Your task to perform on an android device: Show the shopping cart on ebay. Search for usb-c to usb-b on ebay, select the first entry, add it to the cart, then select checkout. Image 0: 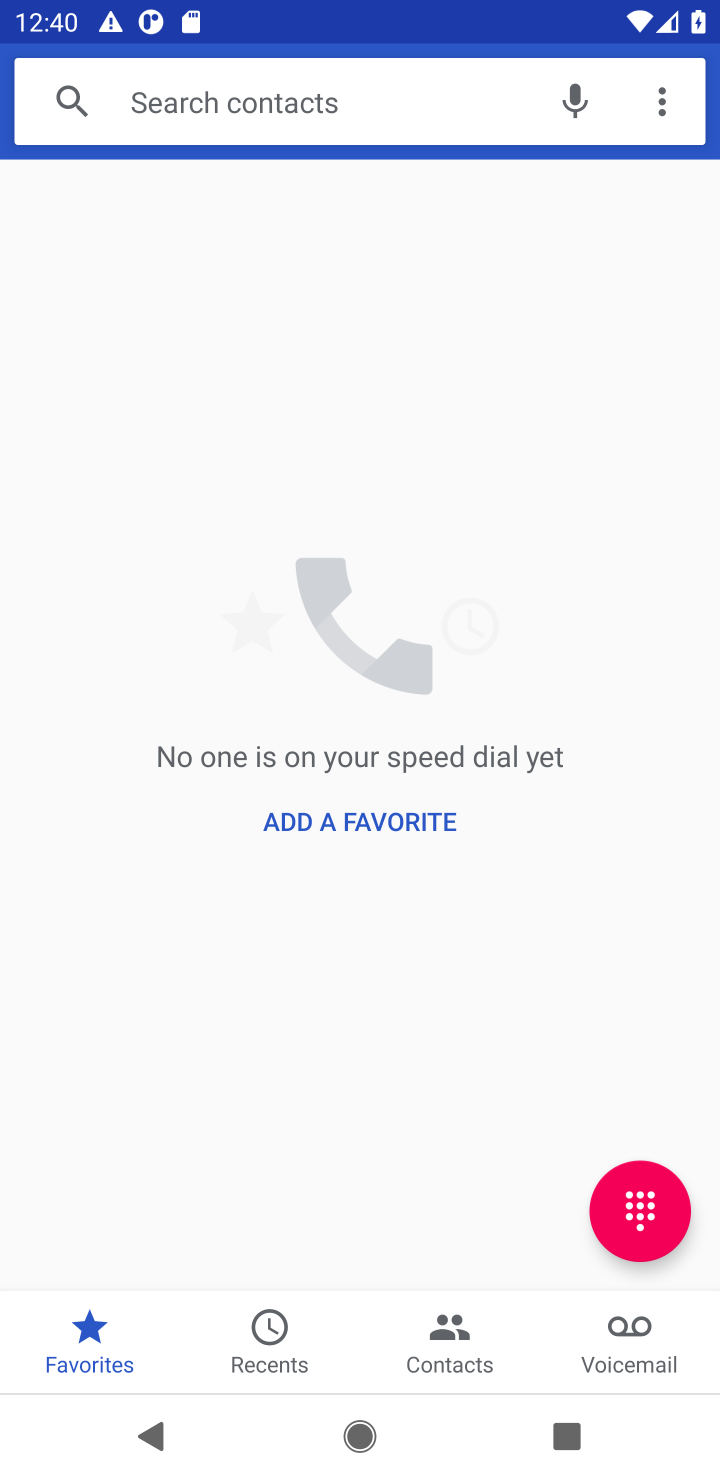
Step 0: press home button
Your task to perform on an android device: Show the shopping cart on ebay. Search for usb-c to usb-b on ebay, select the first entry, add it to the cart, then select checkout. Image 1: 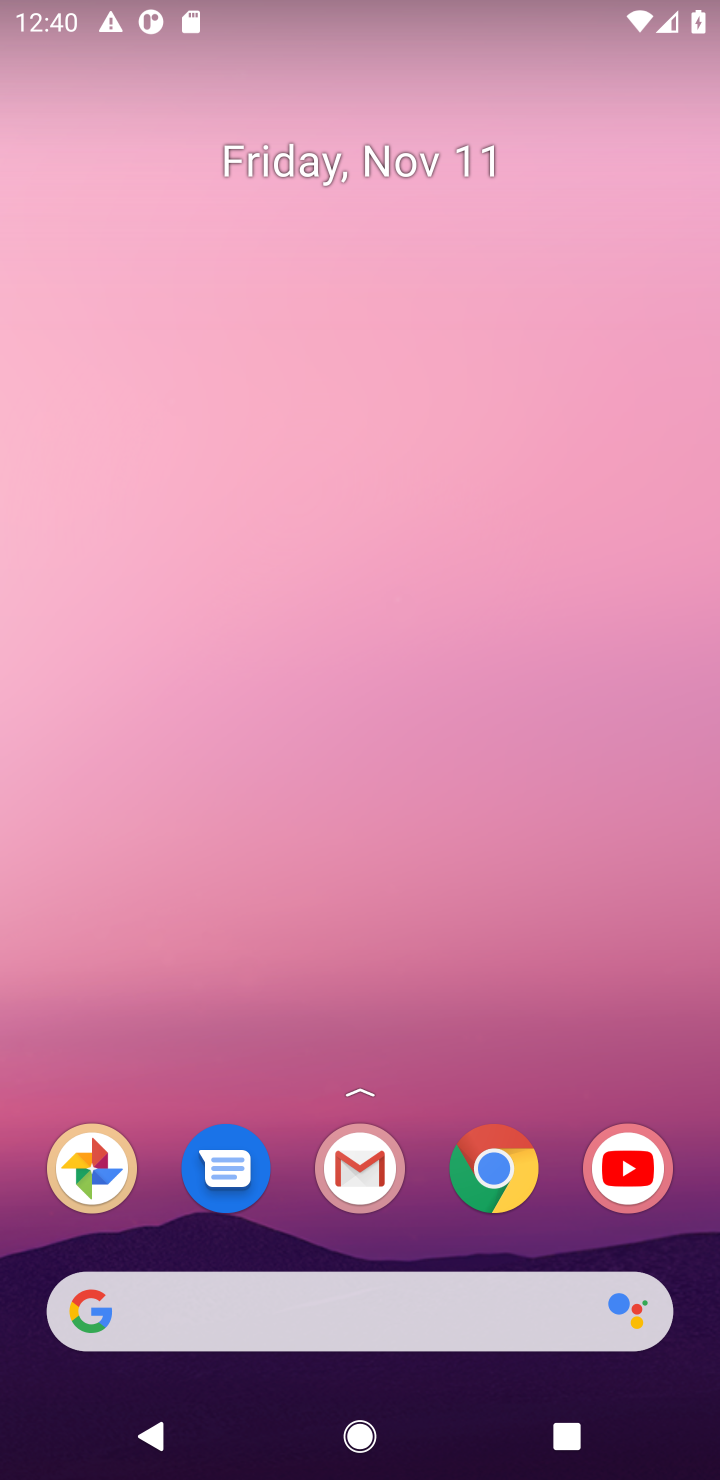
Step 1: click (490, 1168)
Your task to perform on an android device: Show the shopping cart on ebay. Search for usb-c to usb-b on ebay, select the first entry, add it to the cart, then select checkout. Image 2: 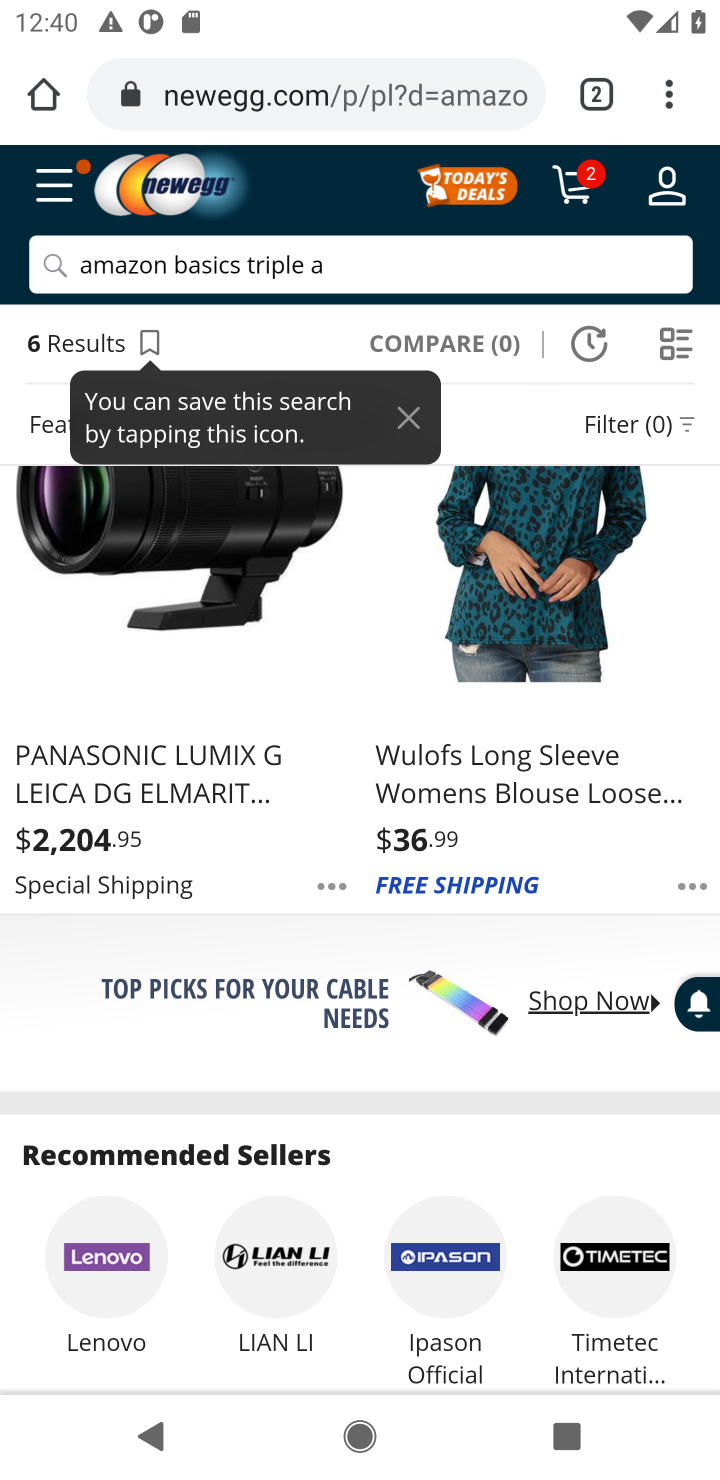
Step 2: click (326, 113)
Your task to perform on an android device: Show the shopping cart on ebay. Search for usb-c to usb-b on ebay, select the first entry, add it to the cart, then select checkout. Image 3: 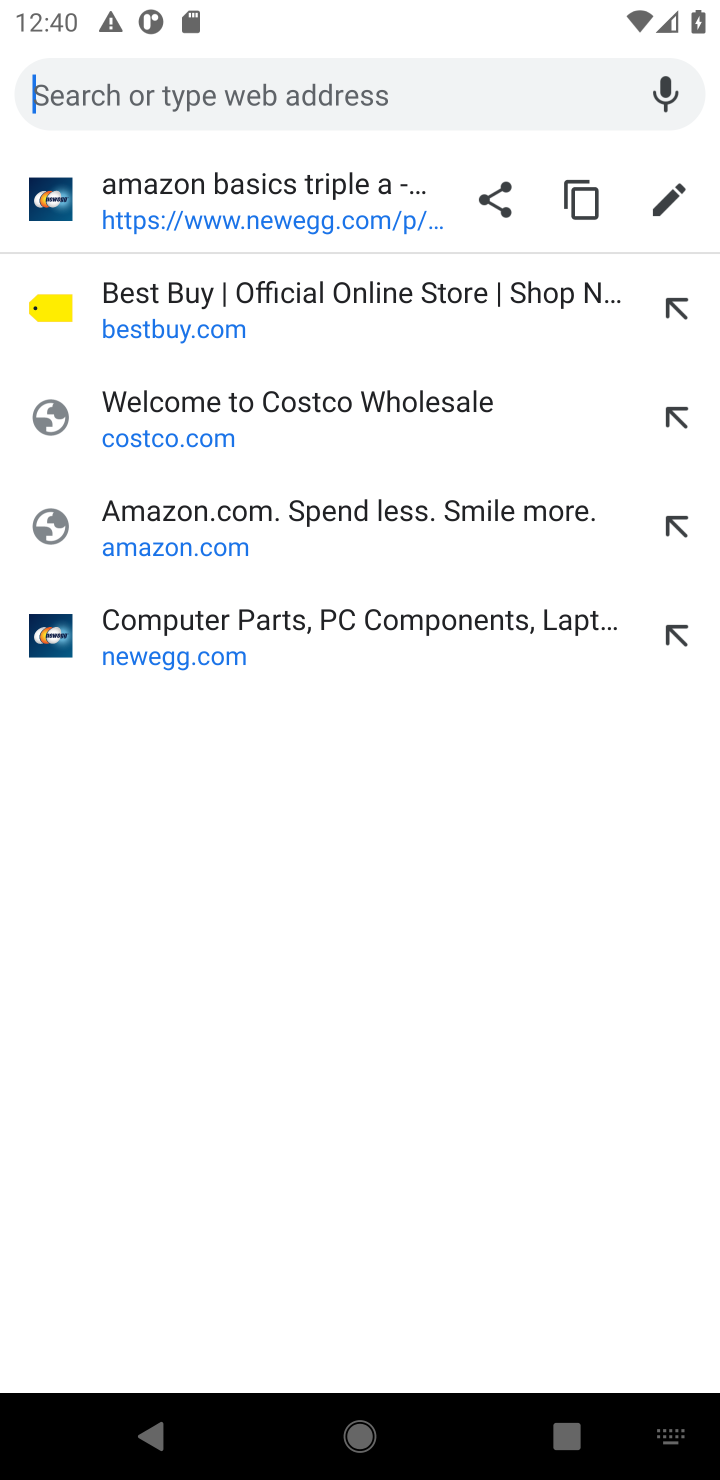
Step 3: type "ebay.com"
Your task to perform on an android device: Show the shopping cart on ebay. Search for usb-c to usb-b on ebay, select the first entry, add it to the cart, then select checkout. Image 4: 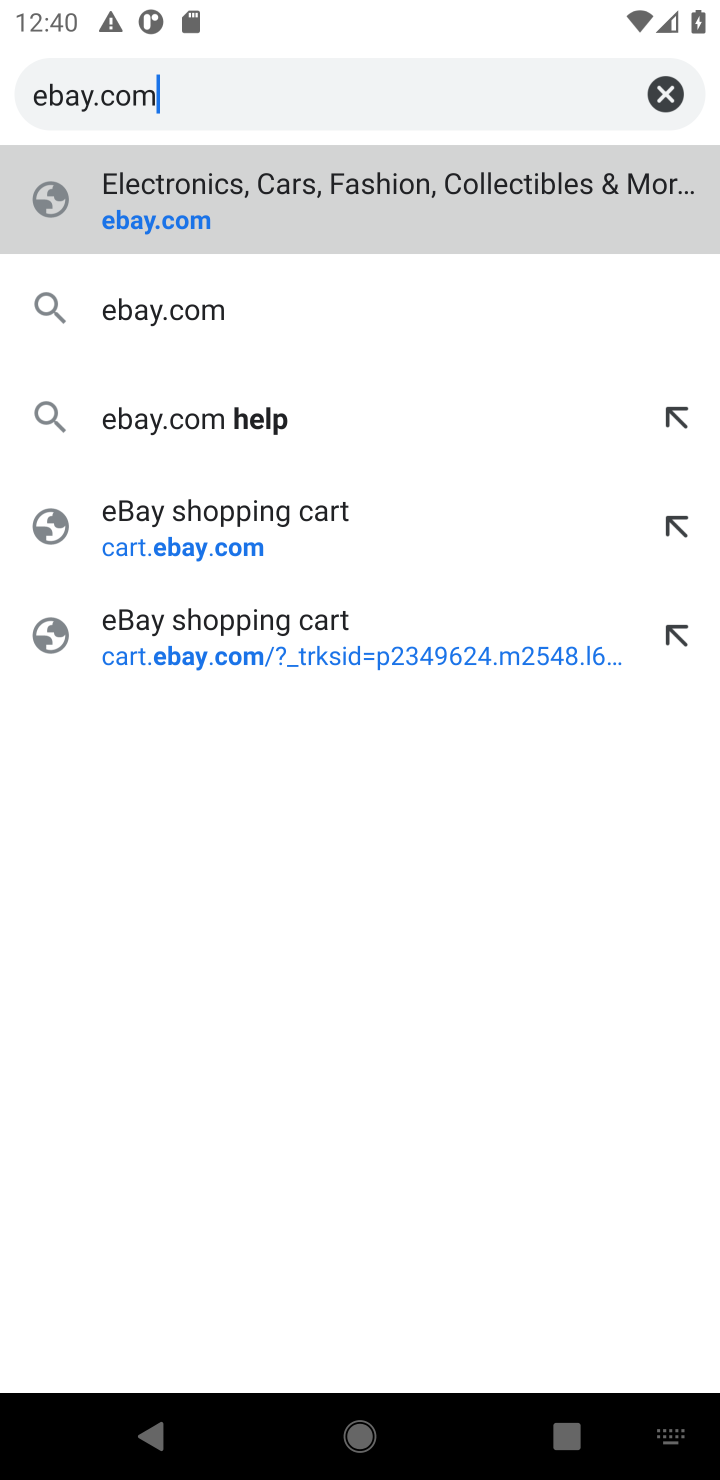
Step 4: click (146, 210)
Your task to perform on an android device: Show the shopping cart on ebay. Search for usb-c to usb-b on ebay, select the first entry, add it to the cart, then select checkout. Image 5: 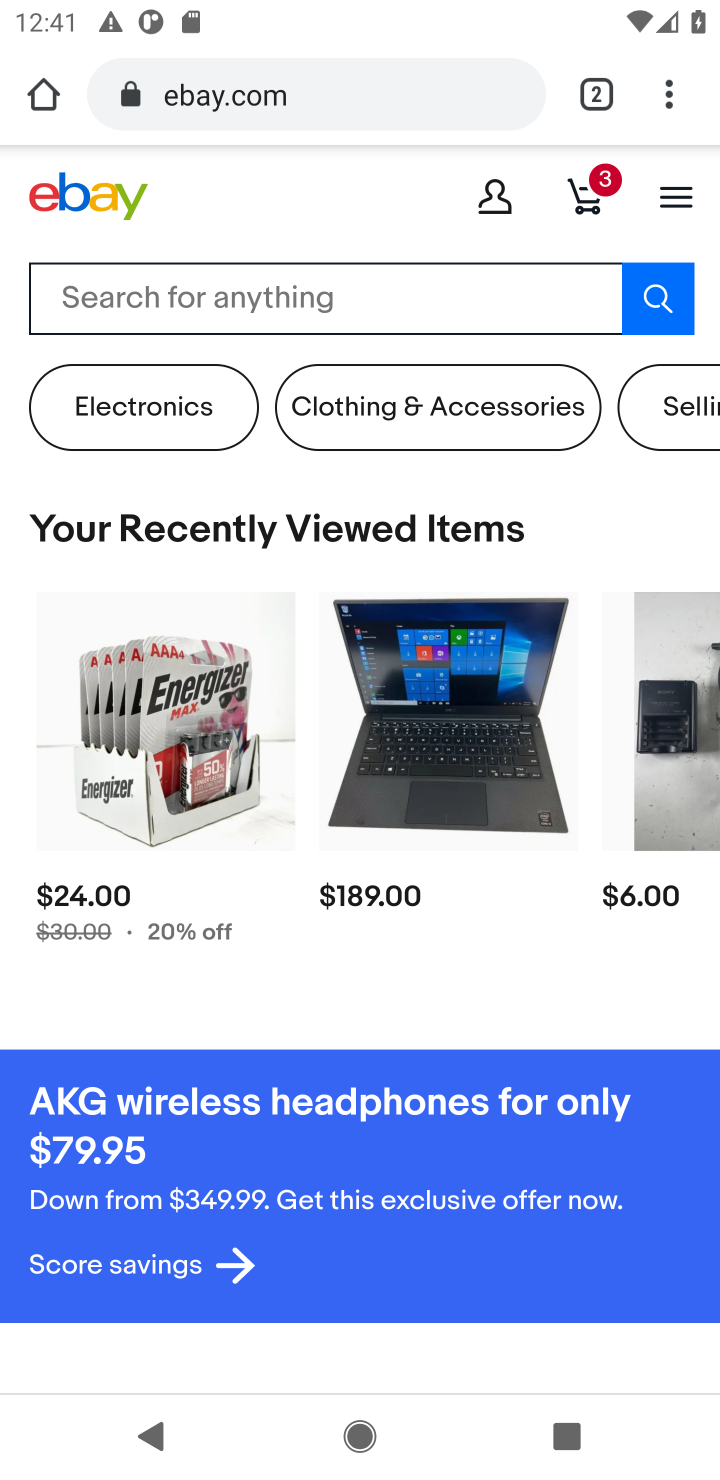
Step 5: click (592, 206)
Your task to perform on an android device: Show the shopping cart on ebay. Search for usb-c to usb-b on ebay, select the first entry, add it to the cart, then select checkout. Image 6: 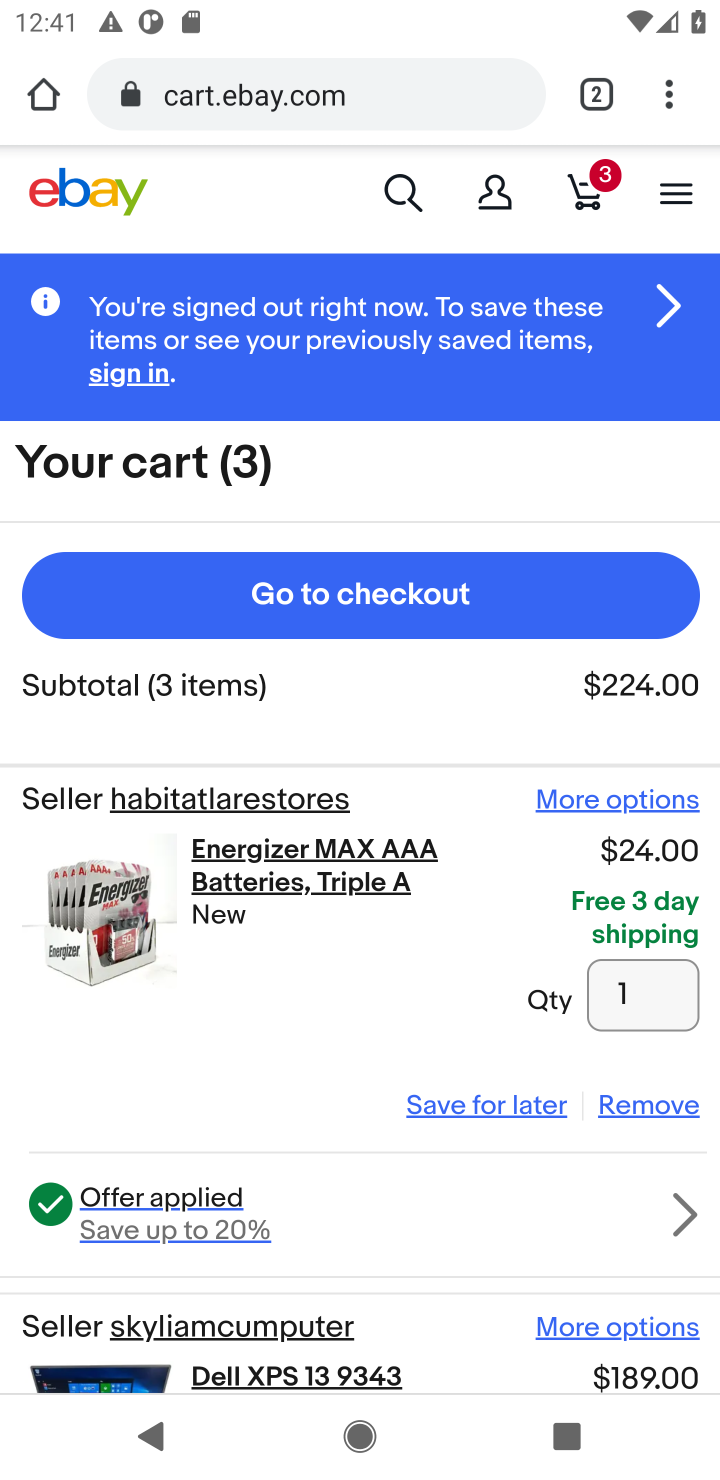
Step 6: click (399, 196)
Your task to perform on an android device: Show the shopping cart on ebay. Search for usb-c to usb-b on ebay, select the first entry, add it to the cart, then select checkout. Image 7: 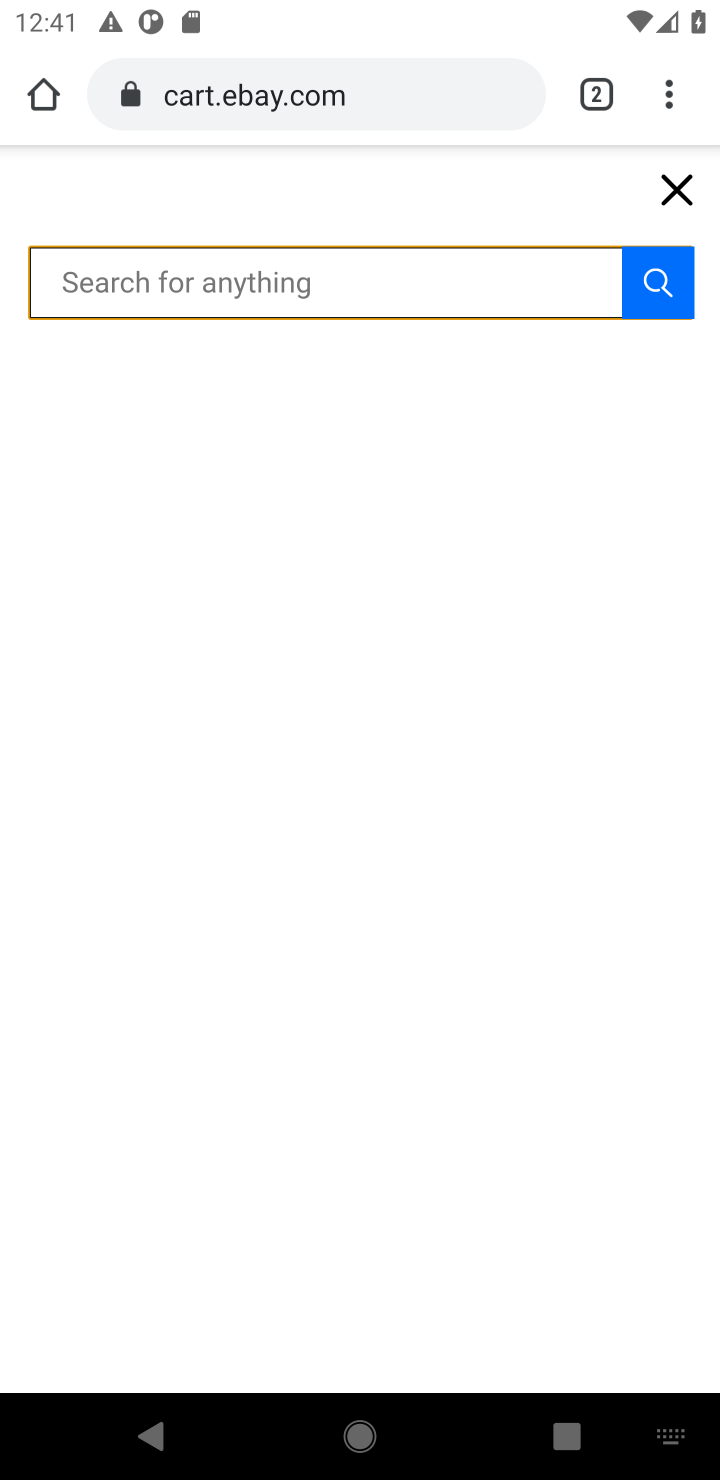
Step 7: type " usb-c to usb-b"
Your task to perform on an android device: Show the shopping cart on ebay. Search for usb-c to usb-b on ebay, select the first entry, add it to the cart, then select checkout. Image 8: 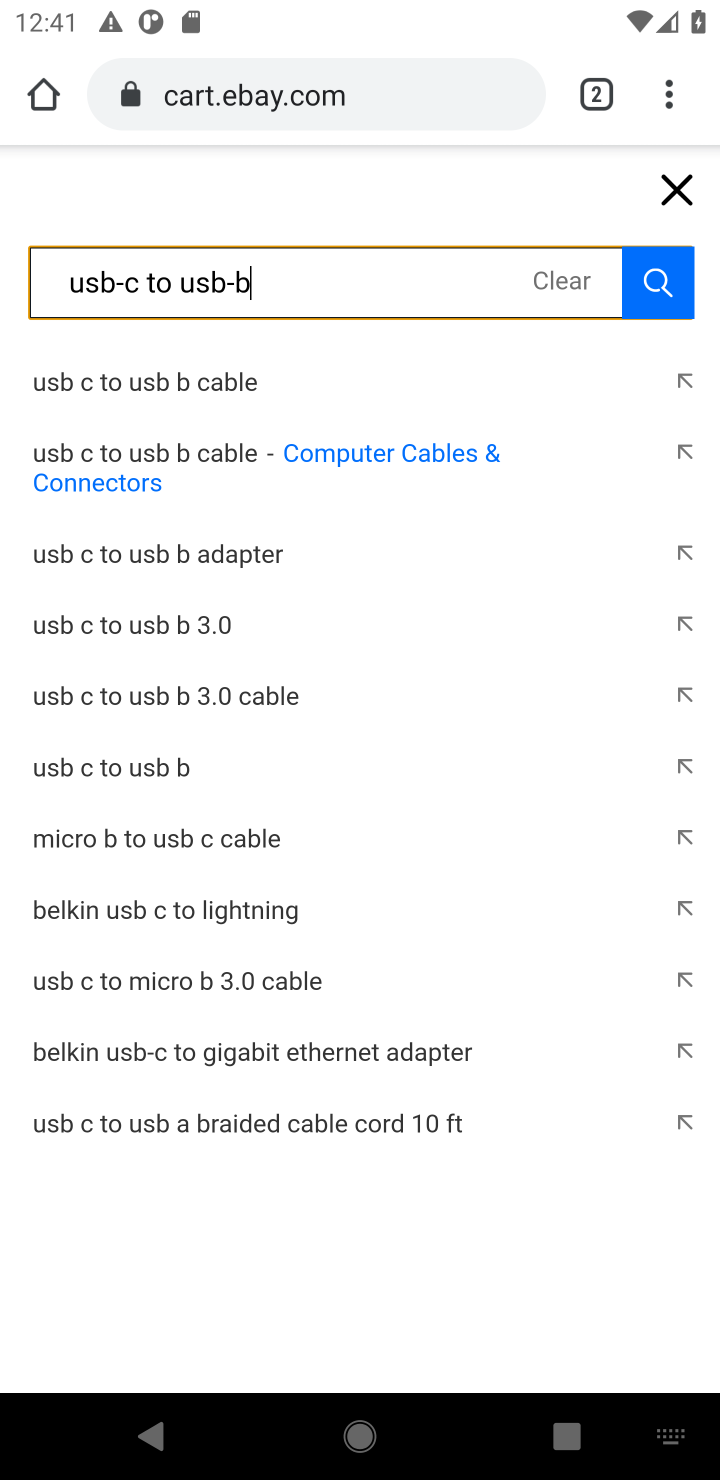
Step 8: click (172, 771)
Your task to perform on an android device: Show the shopping cart on ebay. Search for usb-c to usb-b on ebay, select the first entry, add it to the cart, then select checkout. Image 9: 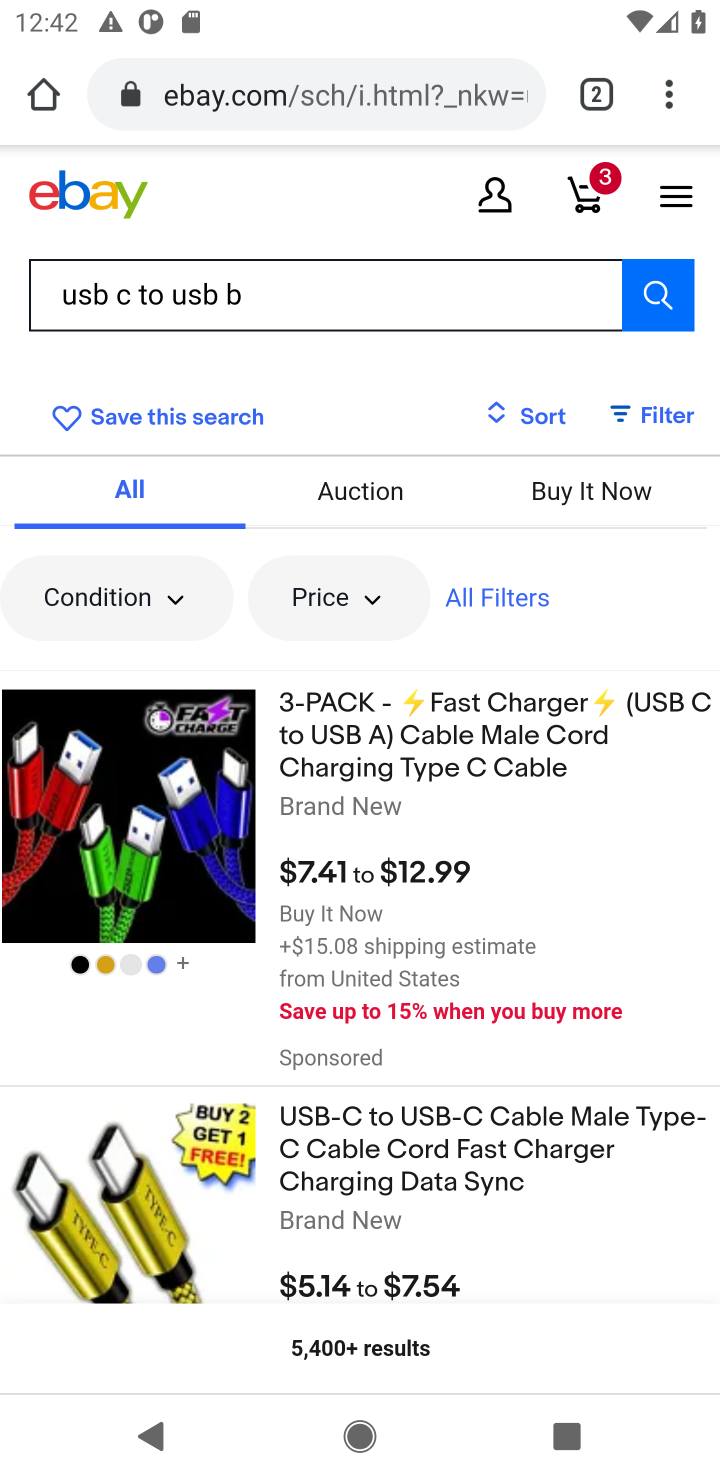
Step 9: click (645, 301)
Your task to perform on an android device: Show the shopping cart on ebay. Search for usb-c to usb-b on ebay, select the first entry, add it to the cart, then select checkout. Image 10: 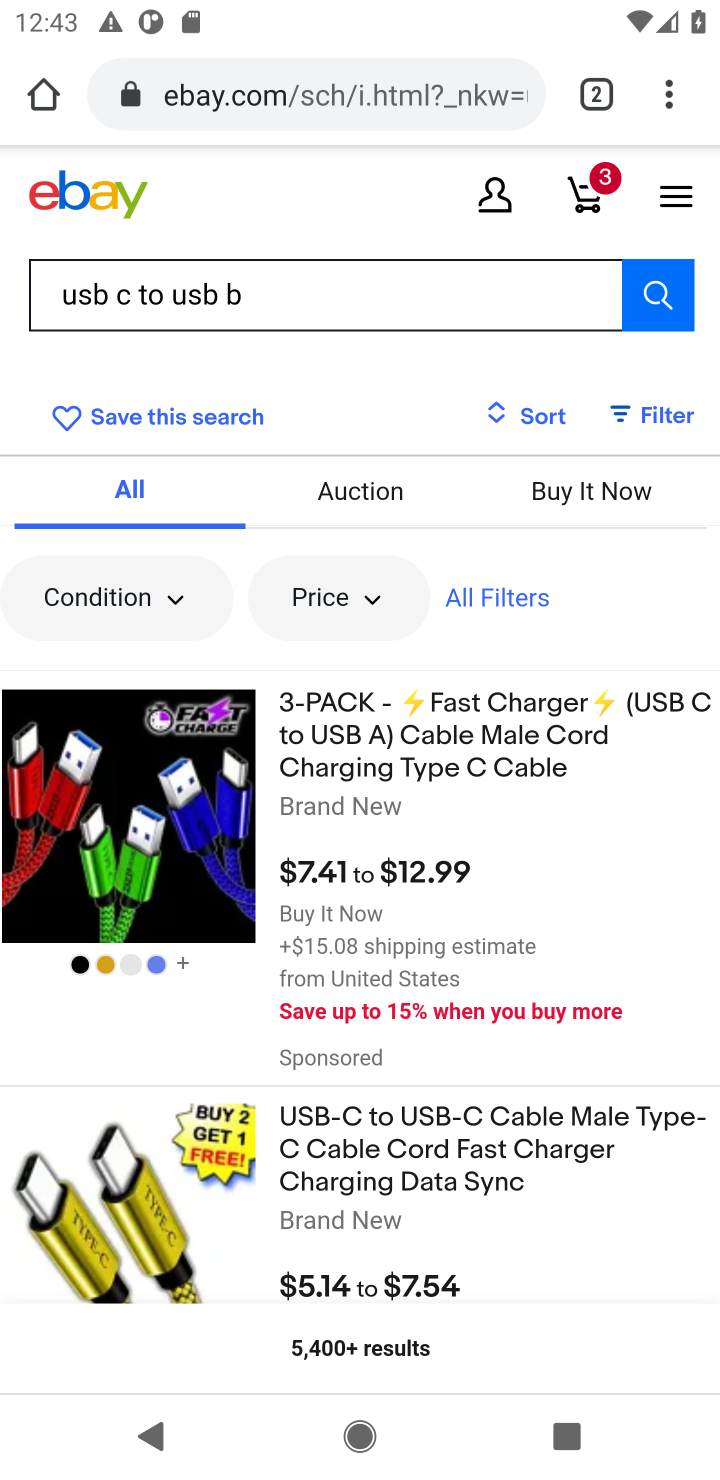
Step 10: task complete